Your task to perform on an android device: Clear the shopping cart on bestbuy.com. Image 0: 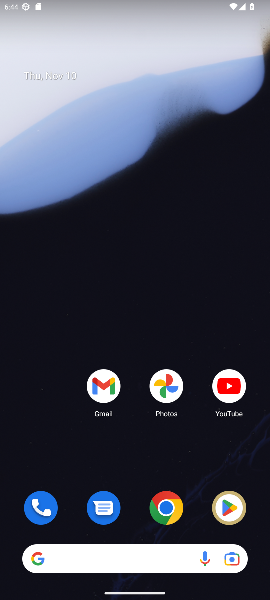
Step 0: click (163, 503)
Your task to perform on an android device: Clear the shopping cart on bestbuy.com. Image 1: 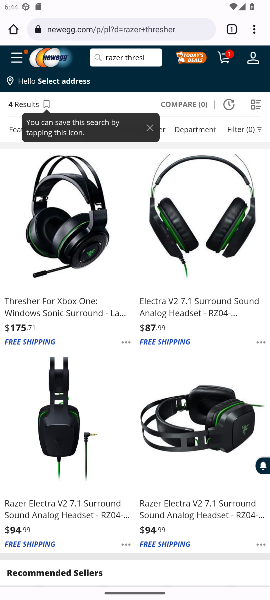
Step 1: click (151, 25)
Your task to perform on an android device: Clear the shopping cart on bestbuy.com. Image 2: 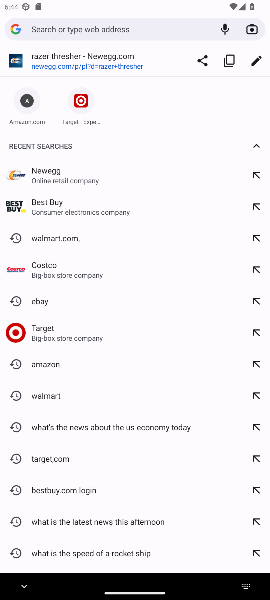
Step 2: click (43, 202)
Your task to perform on an android device: Clear the shopping cart on bestbuy.com. Image 3: 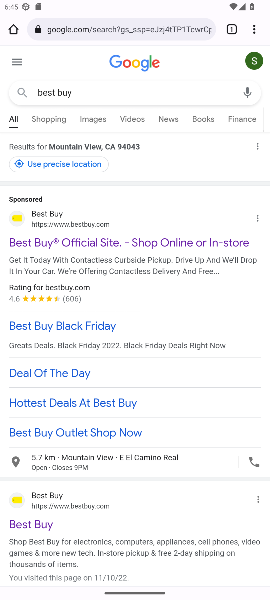
Step 3: click (34, 520)
Your task to perform on an android device: Clear the shopping cart on bestbuy.com. Image 4: 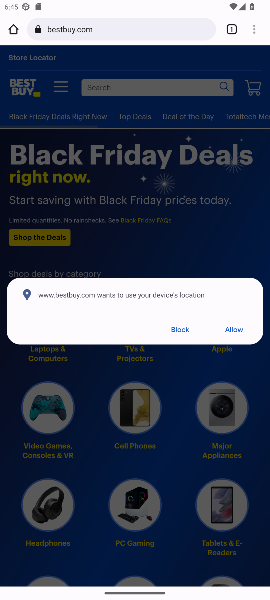
Step 4: click (238, 326)
Your task to perform on an android device: Clear the shopping cart on bestbuy.com. Image 5: 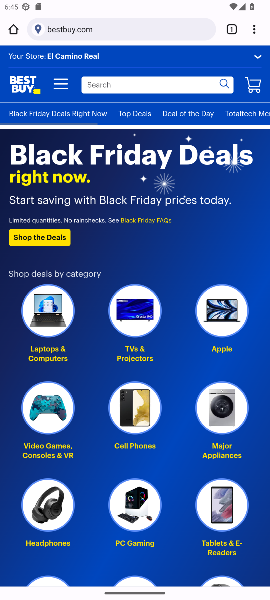
Step 5: click (255, 89)
Your task to perform on an android device: Clear the shopping cart on bestbuy.com. Image 6: 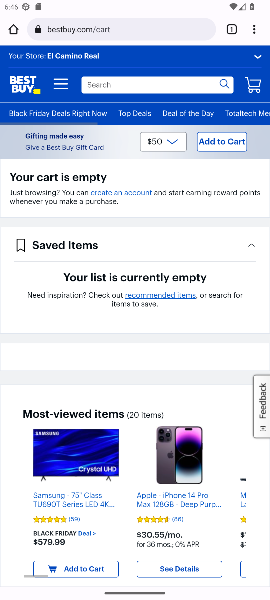
Step 6: task complete